Your task to perform on an android device: set an alarm Image 0: 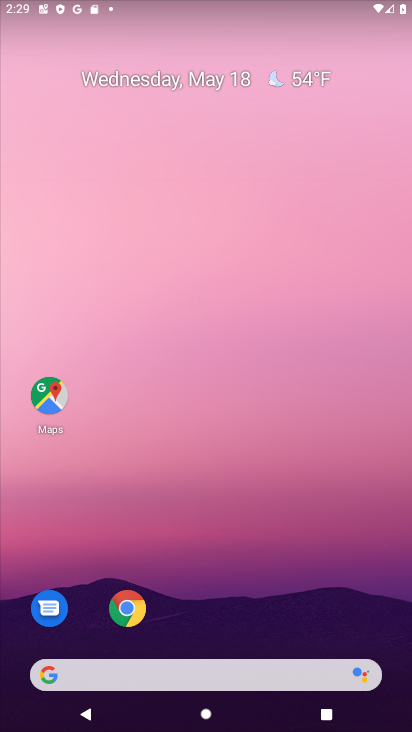
Step 0: drag from (389, 637) to (406, 172)
Your task to perform on an android device: set an alarm Image 1: 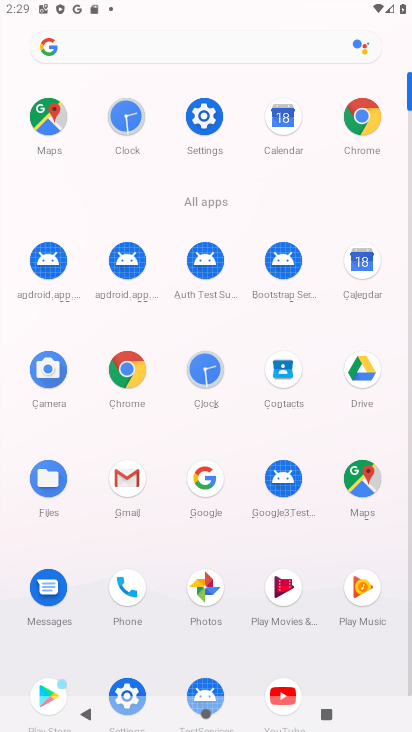
Step 1: click (124, 120)
Your task to perform on an android device: set an alarm Image 2: 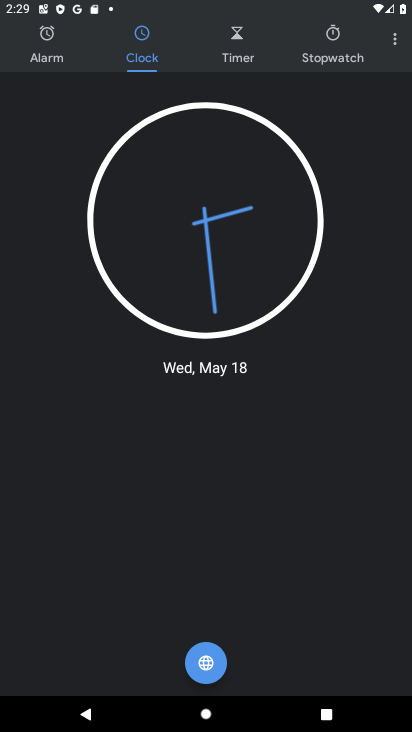
Step 2: click (53, 54)
Your task to perform on an android device: set an alarm Image 3: 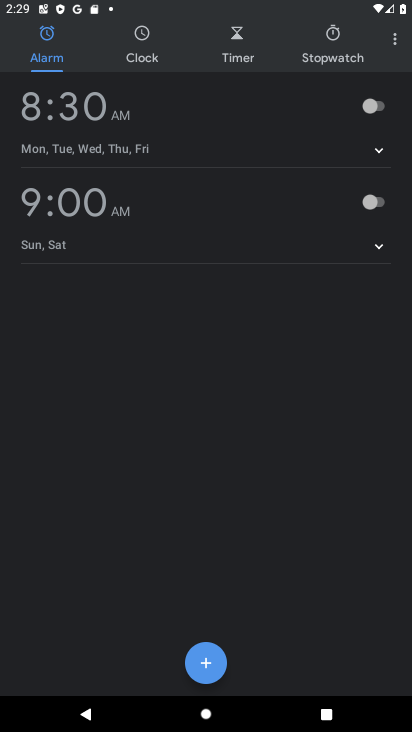
Step 3: click (209, 660)
Your task to perform on an android device: set an alarm Image 4: 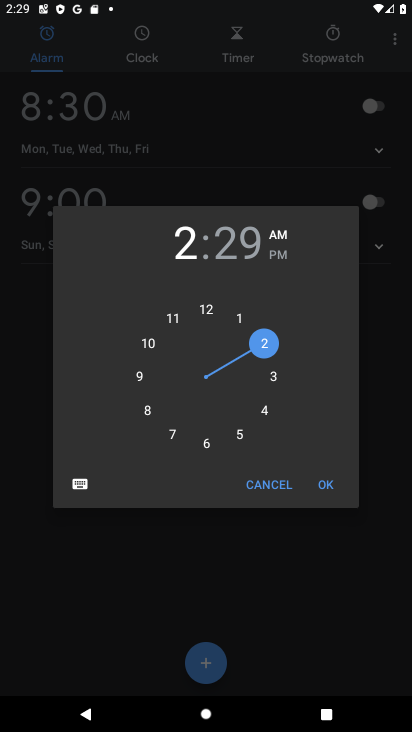
Step 4: click (176, 436)
Your task to perform on an android device: set an alarm Image 5: 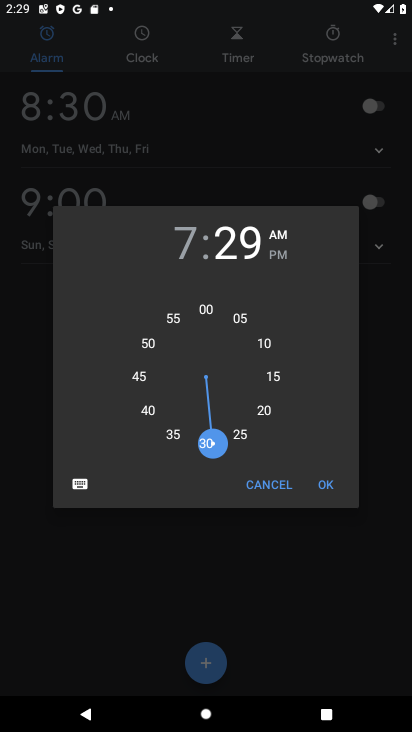
Step 5: click (201, 318)
Your task to perform on an android device: set an alarm Image 6: 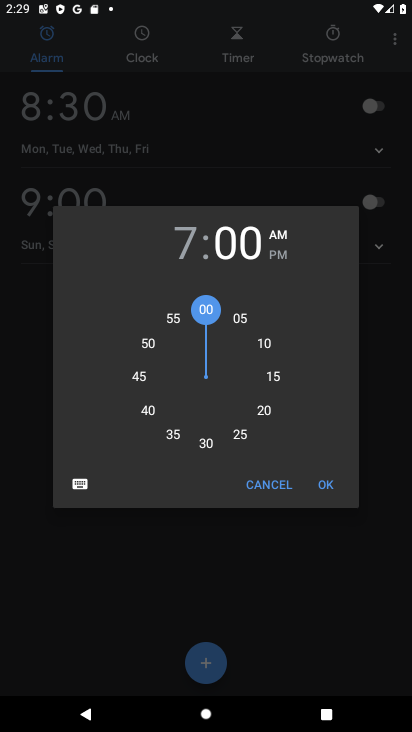
Step 6: click (334, 489)
Your task to perform on an android device: set an alarm Image 7: 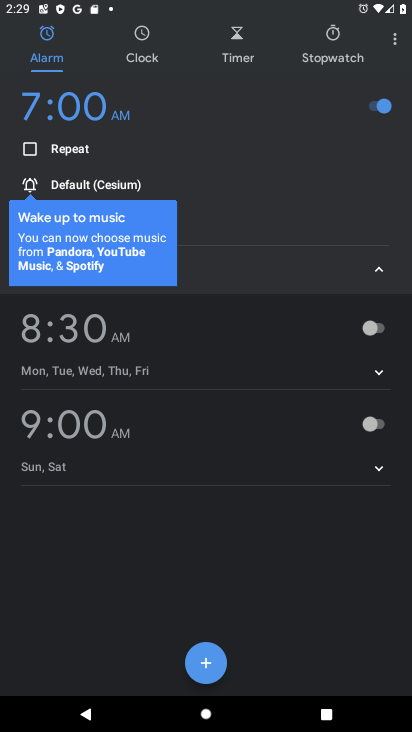
Step 7: task complete